Your task to perform on an android device: turn on data saver in the chrome app Image 0: 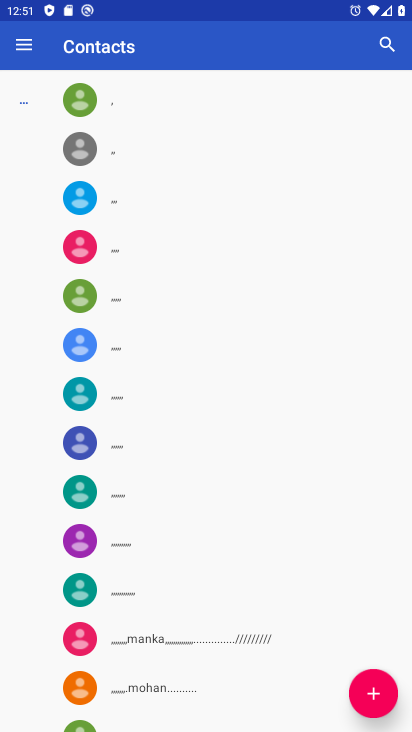
Step 0: press home button
Your task to perform on an android device: turn on data saver in the chrome app Image 1: 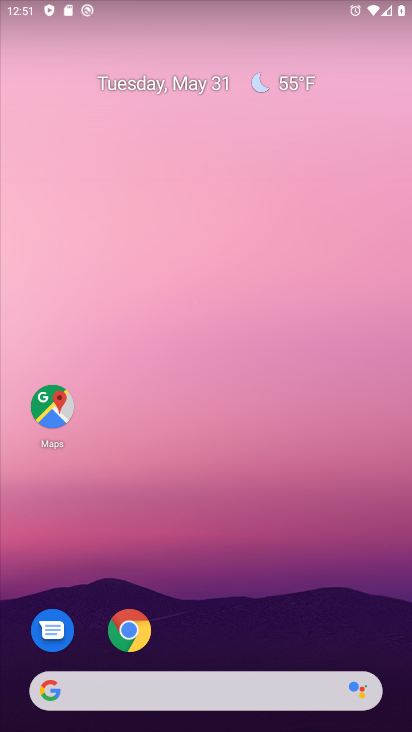
Step 1: drag from (166, 440) to (183, 239)
Your task to perform on an android device: turn on data saver in the chrome app Image 2: 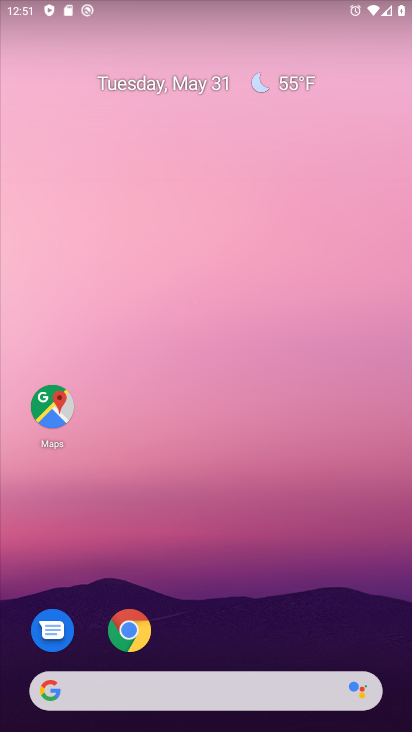
Step 2: drag from (235, 668) to (261, 177)
Your task to perform on an android device: turn on data saver in the chrome app Image 3: 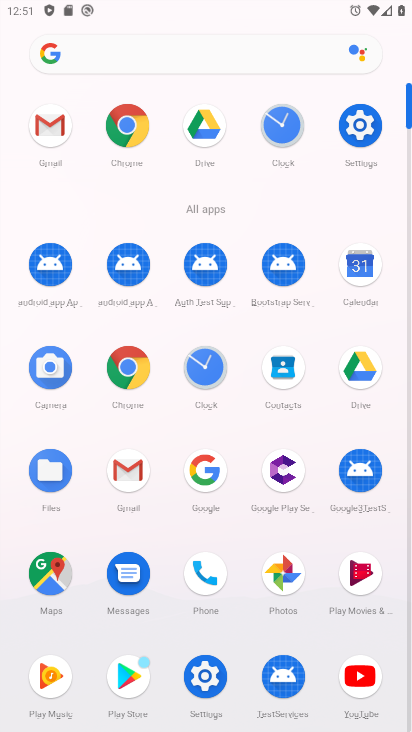
Step 3: click (136, 125)
Your task to perform on an android device: turn on data saver in the chrome app Image 4: 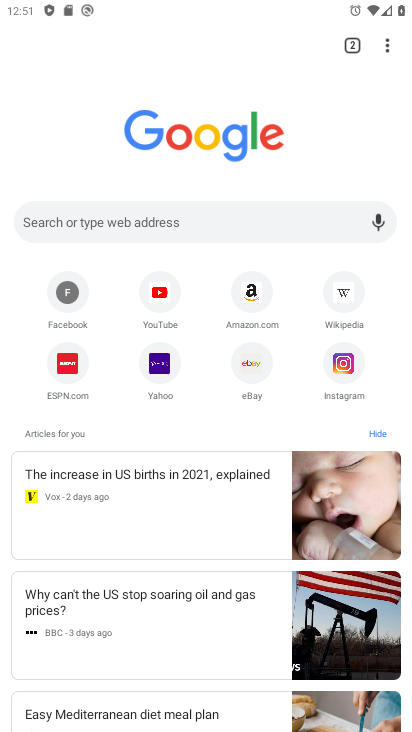
Step 4: click (385, 52)
Your task to perform on an android device: turn on data saver in the chrome app Image 5: 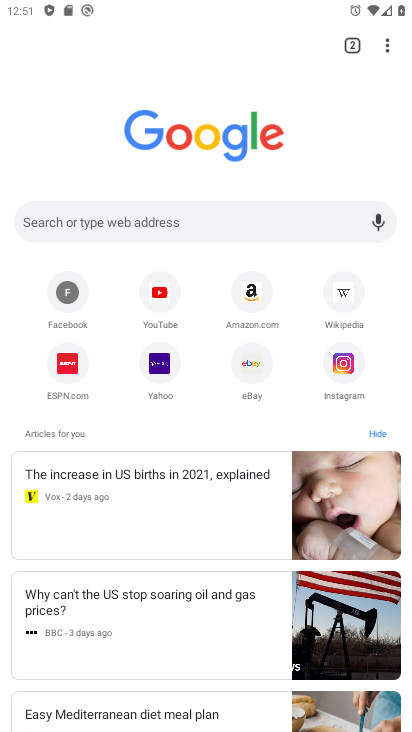
Step 5: click (392, 44)
Your task to perform on an android device: turn on data saver in the chrome app Image 6: 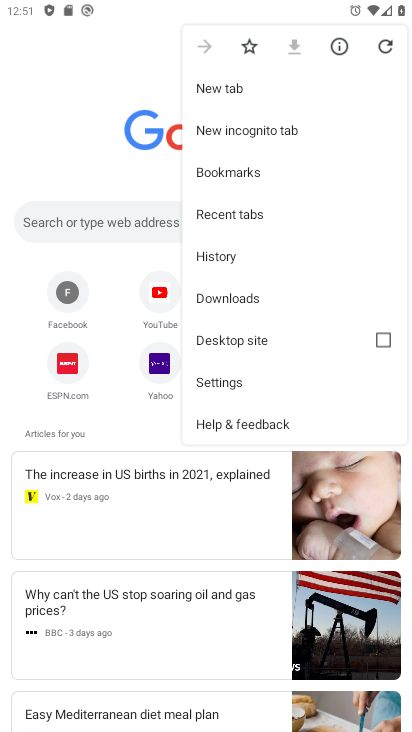
Step 6: click (239, 374)
Your task to perform on an android device: turn on data saver in the chrome app Image 7: 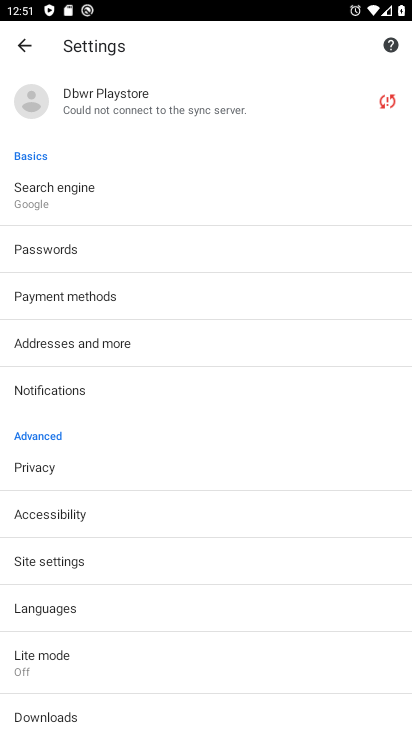
Step 7: drag from (90, 665) to (115, 207)
Your task to perform on an android device: turn on data saver in the chrome app Image 8: 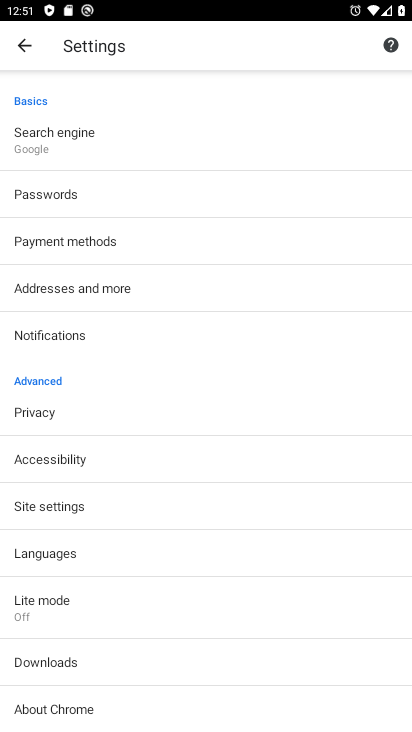
Step 8: click (56, 609)
Your task to perform on an android device: turn on data saver in the chrome app Image 9: 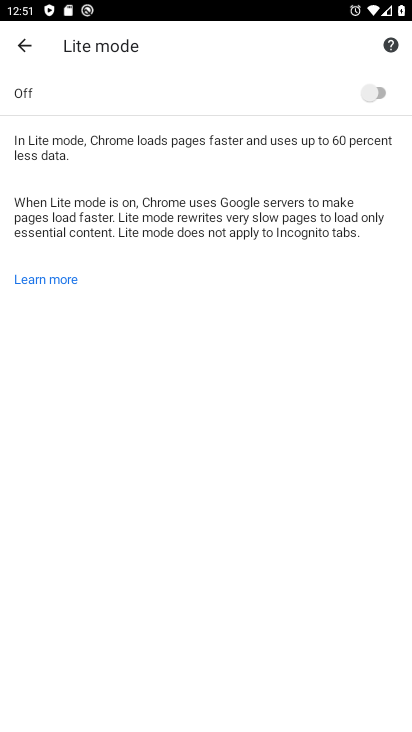
Step 9: click (385, 95)
Your task to perform on an android device: turn on data saver in the chrome app Image 10: 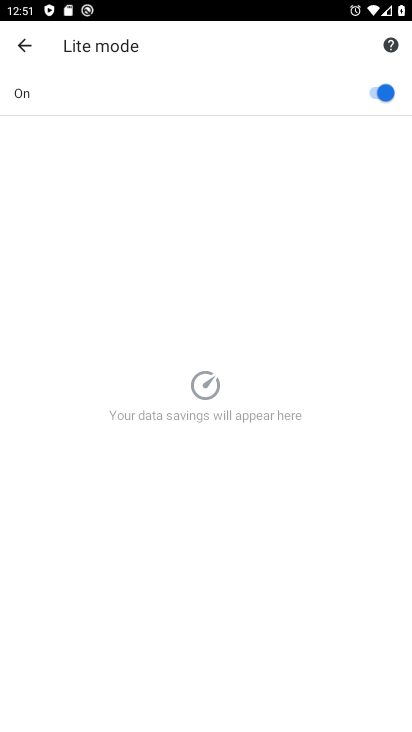
Step 10: task complete